Your task to perform on an android device: install app "Google Drive" Image 0: 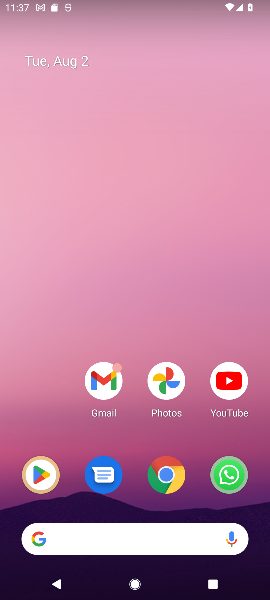
Step 0: click (43, 476)
Your task to perform on an android device: install app "Google Drive" Image 1: 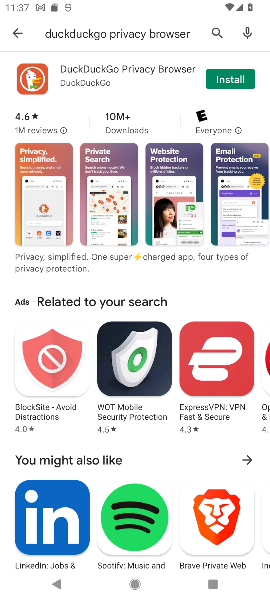
Step 1: click (218, 30)
Your task to perform on an android device: install app "Google Drive" Image 2: 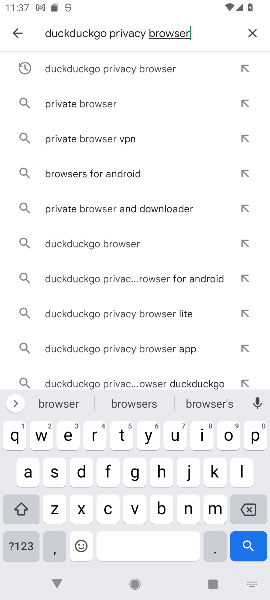
Step 2: click (256, 28)
Your task to perform on an android device: install app "Google Drive" Image 3: 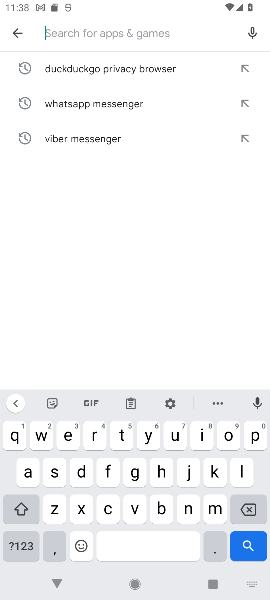
Step 3: type "Google Drive"
Your task to perform on an android device: install app "Google Drive" Image 4: 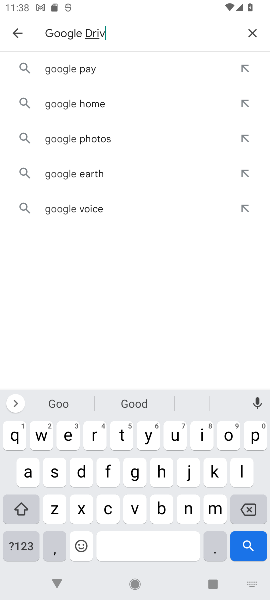
Step 4: type ""
Your task to perform on an android device: install app "Google Drive" Image 5: 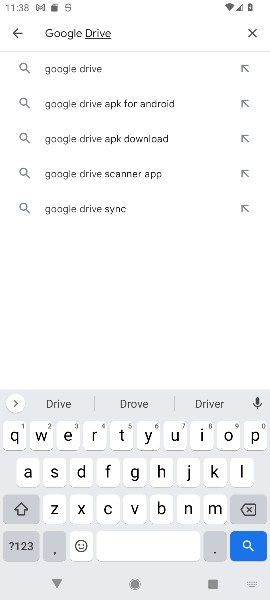
Step 5: click (83, 71)
Your task to perform on an android device: install app "Google Drive" Image 6: 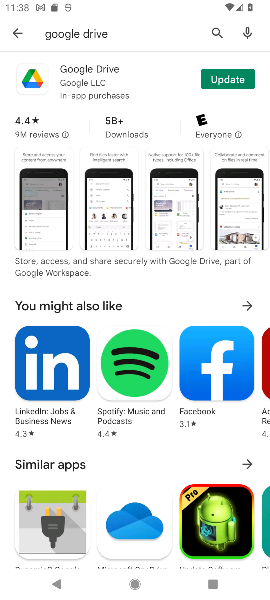
Step 6: click (217, 75)
Your task to perform on an android device: install app "Google Drive" Image 7: 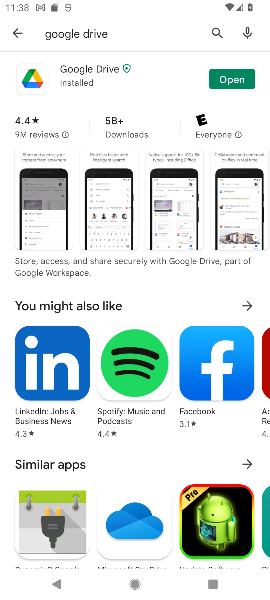
Step 7: task complete